Your task to perform on an android device: toggle priority inbox in the gmail app Image 0: 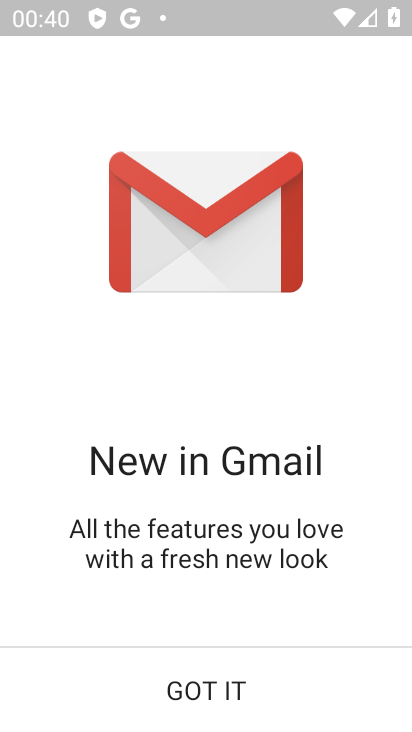
Step 0: click (178, 676)
Your task to perform on an android device: toggle priority inbox in the gmail app Image 1: 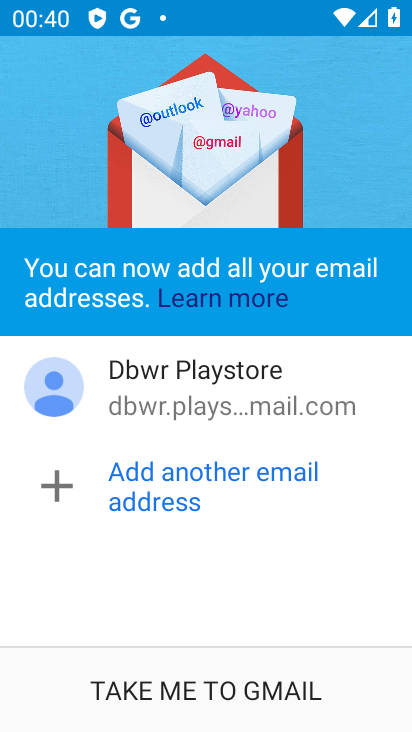
Step 1: drag from (189, 593) to (224, 274)
Your task to perform on an android device: toggle priority inbox in the gmail app Image 2: 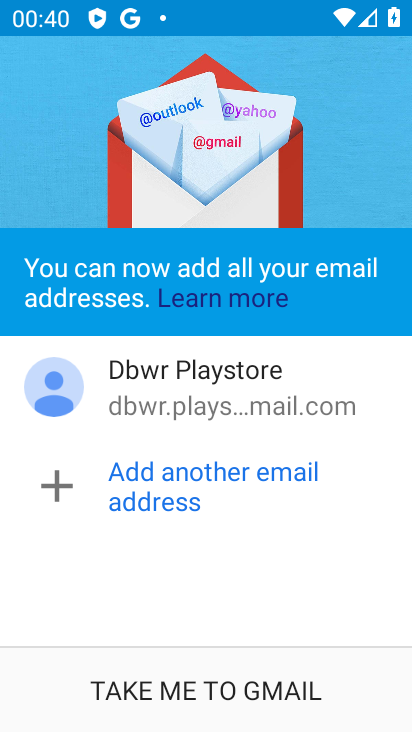
Step 2: click (252, 692)
Your task to perform on an android device: toggle priority inbox in the gmail app Image 3: 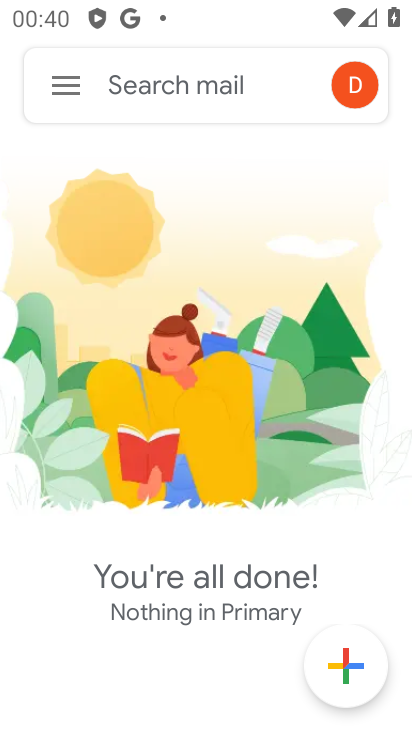
Step 3: click (72, 84)
Your task to perform on an android device: toggle priority inbox in the gmail app Image 4: 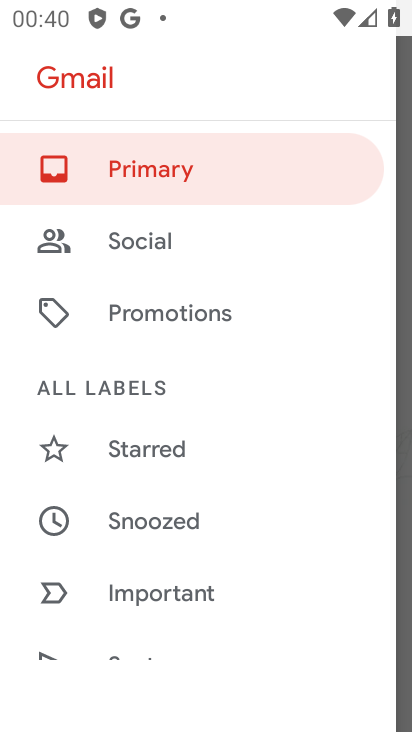
Step 4: task complete